Your task to perform on an android device: change the clock display to analog Image 0: 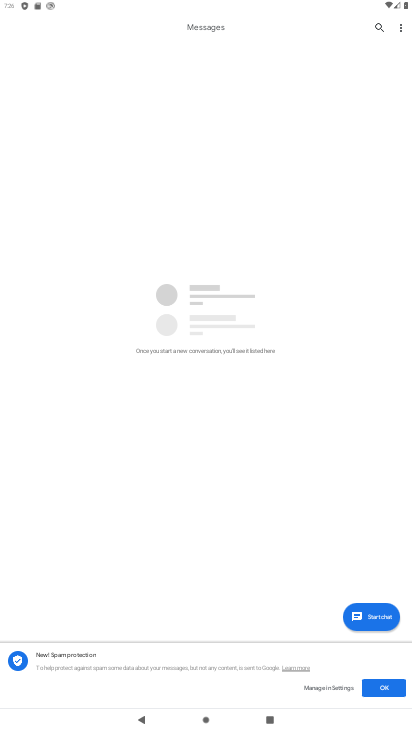
Step 0: press home button
Your task to perform on an android device: change the clock display to analog Image 1: 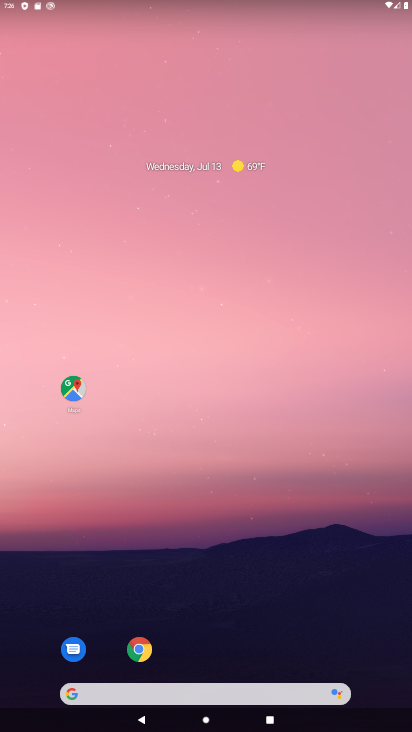
Step 1: drag from (214, 690) to (315, 105)
Your task to perform on an android device: change the clock display to analog Image 2: 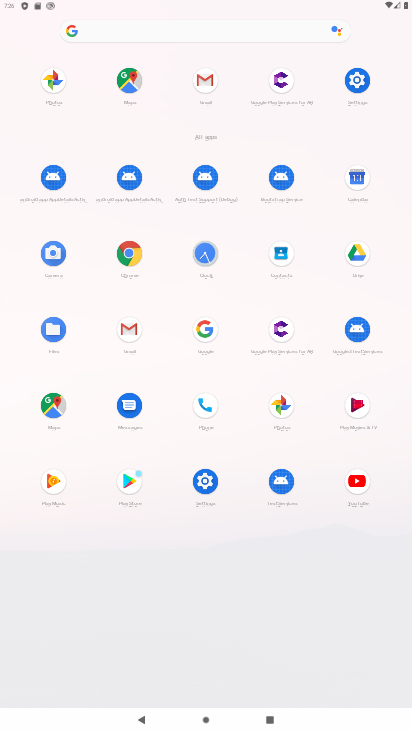
Step 2: click (209, 252)
Your task to perform on an android device: change the clock display to analog Image 3: 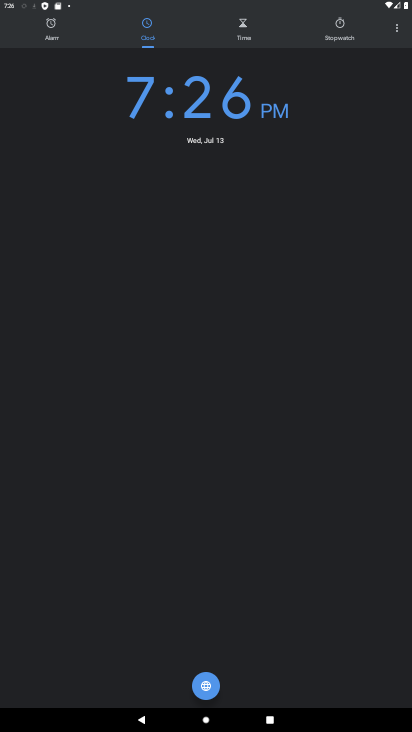
Step 3: click (399, 32)
Your task to perform on an android device: change the clock display to analog Image 4: 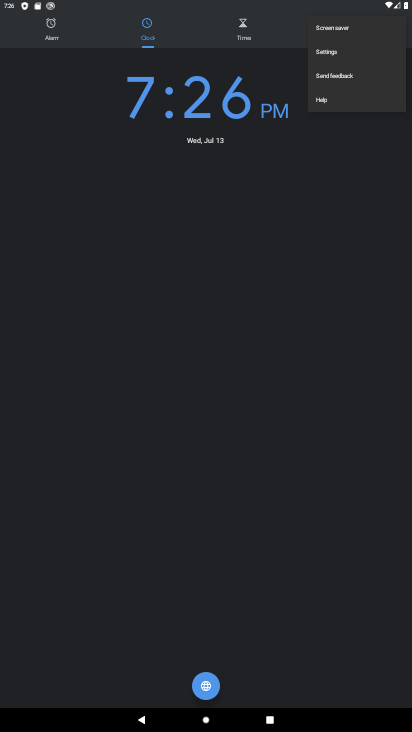
Step 4: click (334, 59)
Your task to perform on an android device: change the clock display to analog Image 5: 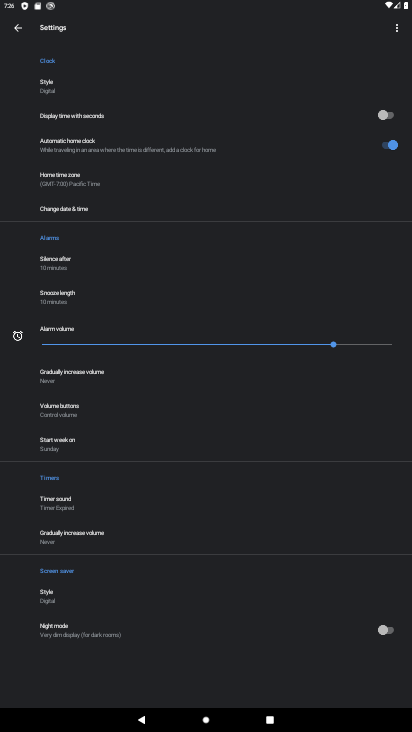
Step 5: click (53, 90)
Your task to perform on an android device: change the clock display to analog Image 6: 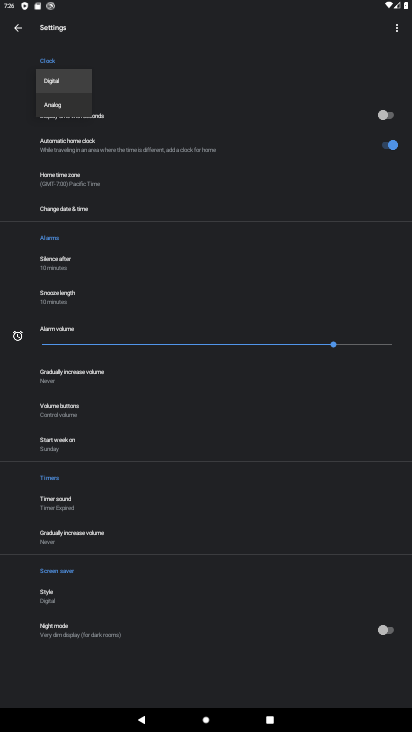
Step 6: click (58, 109)
Your task to perform on an android device: change the clock display to analog Image 7: 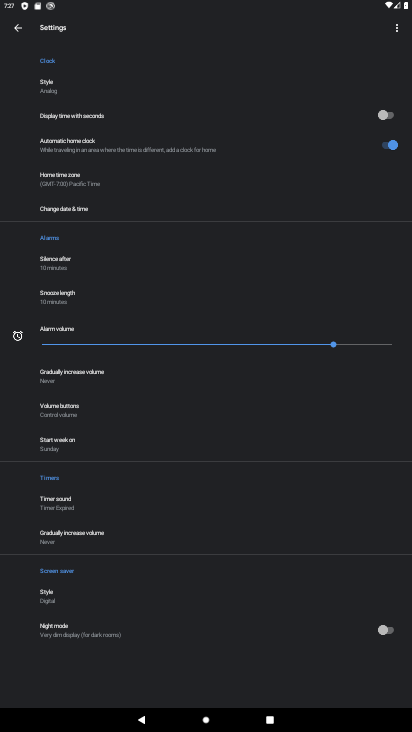
Step 7: task complete